Your task to perform on an android device: Go to notification settings Image 0: 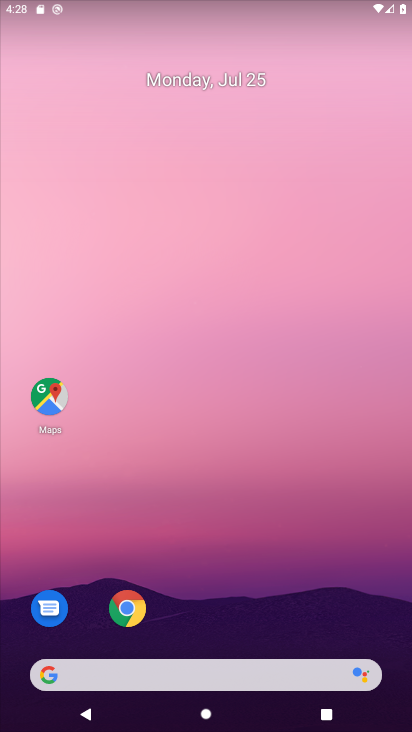
Step 0: drag from (210, 642) to (201, 19)
Your task to perform on an android device: Go to notification settings Image 1: 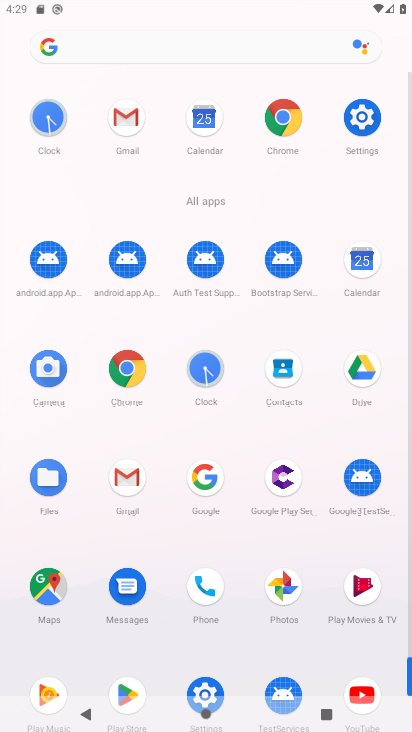
Step 1: drag from (186, 585) to (183, 365)
Your task to perform on an android device: Go to notification settings Image 2: 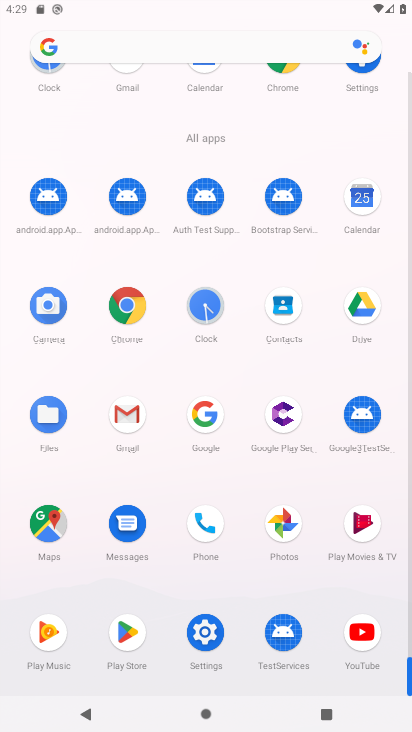
Step 2: click (202, 641)
Your task to perform on an android device: Go to notification settings Image 3: 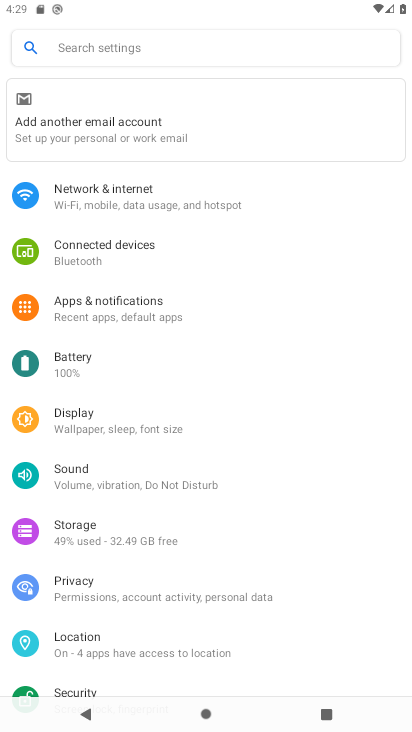
Step 3: click (117, 307)
Your task to perform on an android device: Go to notification settings Image 4: 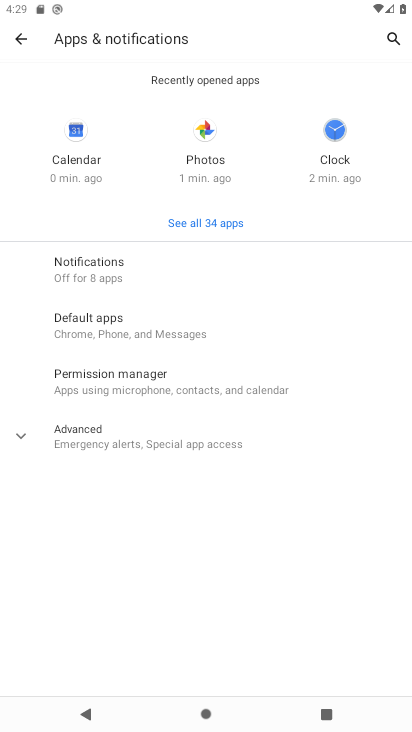
Step 4: click (98, 256)
Your task to perform on an android device: Go to notification settings Image 5: 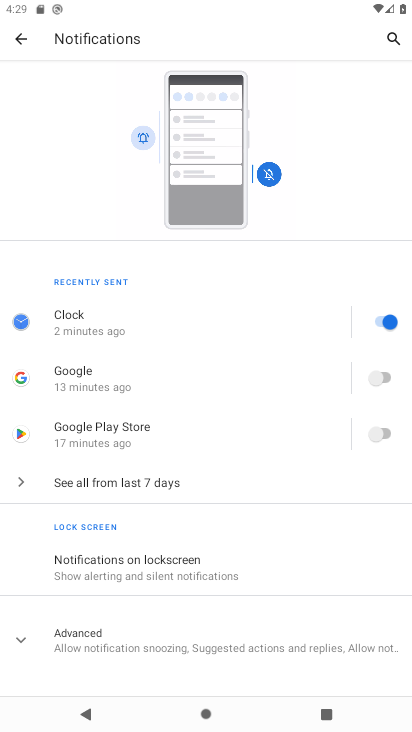
Step 5: task complete